Your task to perform on an android device: move an email to a new category in the gmail app Image 0: 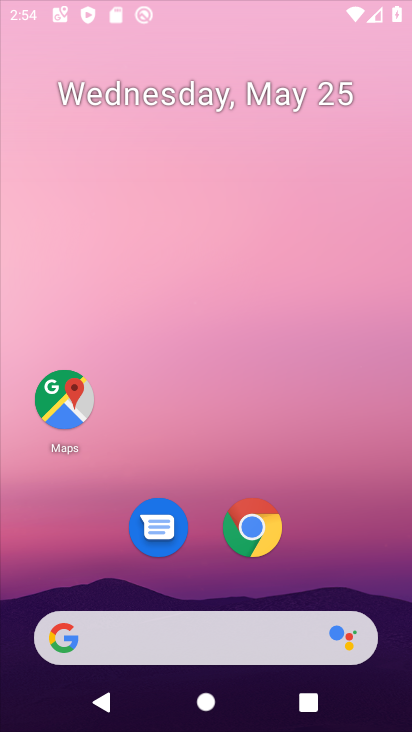
Step 0: click (287, 59)
Your task to perform on an android device: move an email to a new category in the gmail app Image 1: 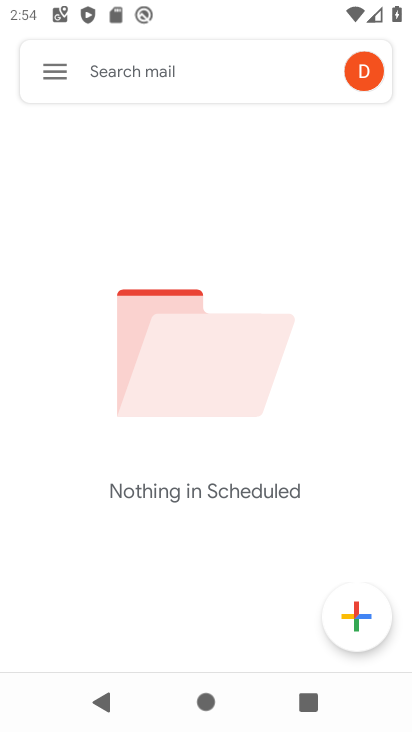
Step 1: press home button
Your task to perform on an android device: move an email to a new category in the gmail app Image 2: 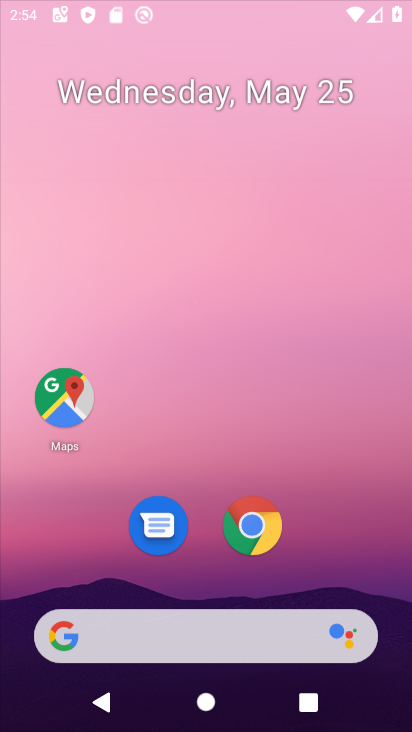
Step 2: drag from (191, 586) to (286, 85)
Your task to perform on an android device: move an email to a new category in the gmail app Image 3: 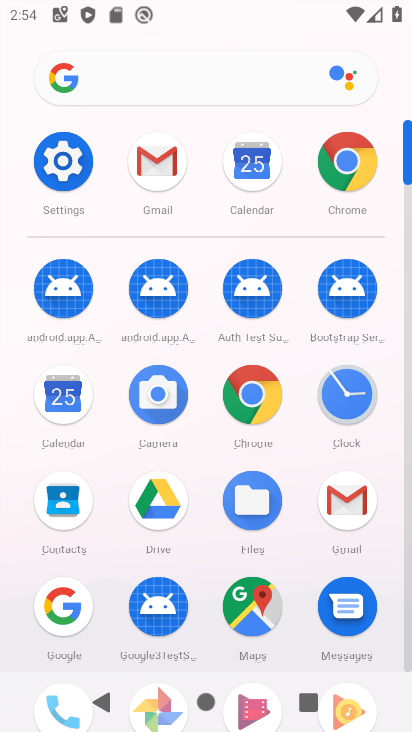
Step 3: click (353, 501)
Your task to perform on an android device: move an email to a new category in the gmail app Image 4: 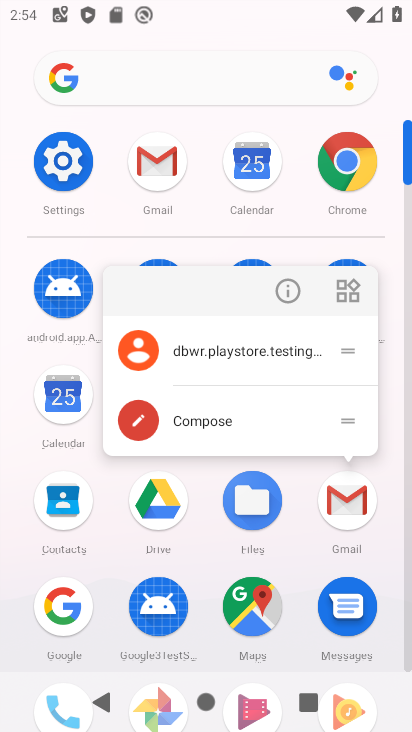
Step 4: click (289, 292)
Your task to perform on an android device: move an email to a new category in the gmail app Image 5: 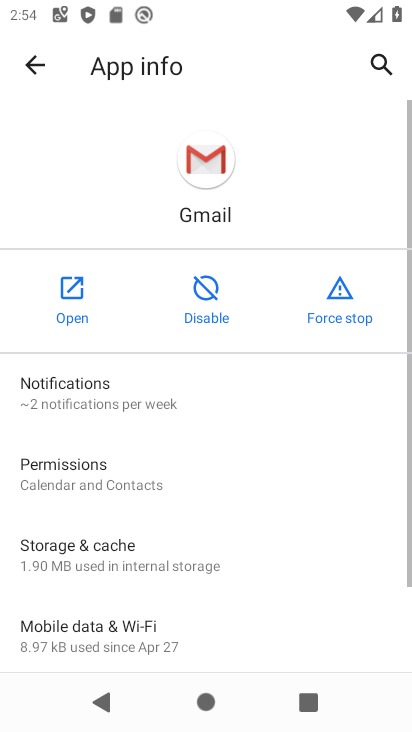
Step 5: click (99, 311)
Your task to perform on an android device: move an email to a new category in the gmail app Image 6: 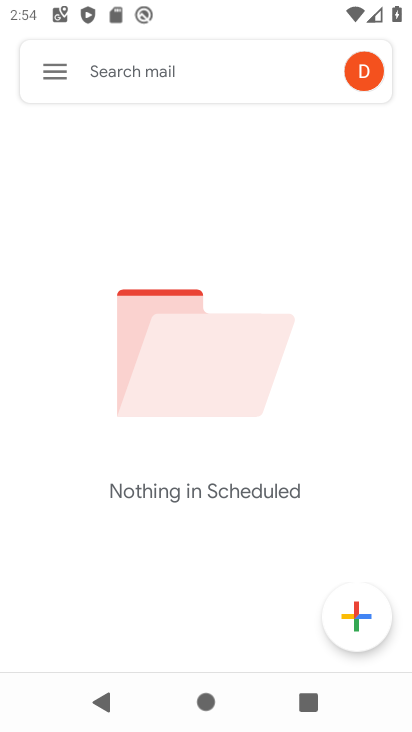
Step 6: click (45, 58)
Your task to perform on an android device: move an email to a new category in the gmail app Image 7: 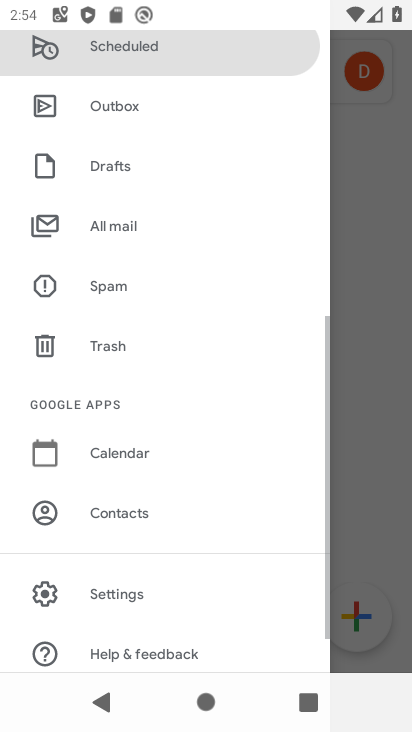
Step 7: drag from (198, 450) to (243, 114)
Your task to perform on an android device: move an email to a new category in the gmail app Image 8: 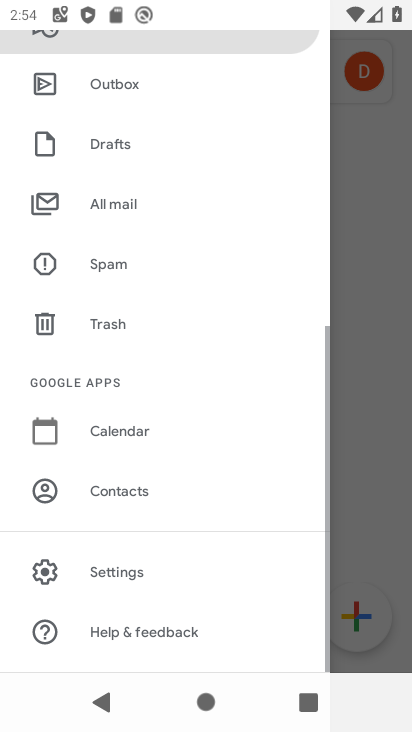
Step 8: drag from (154, 216) to (179, 677)
Your task to perform on an android device: move an email to a new category in the gmail app Image 9: 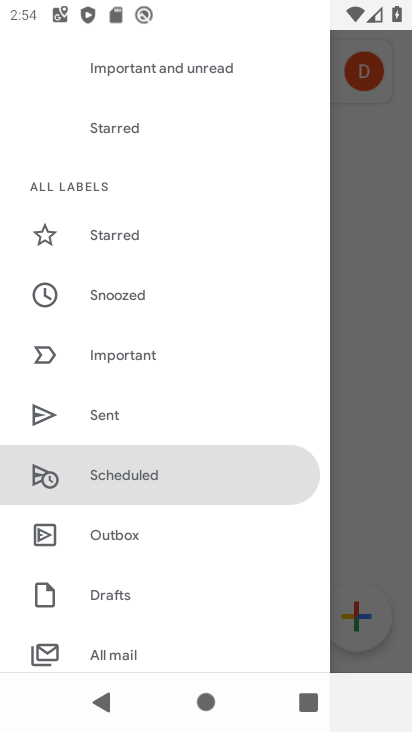
Step 9: drag from (148, 213) to (163, 682)
Your task to perform on an android device: move an email to a new category in the gmail app Image 10: 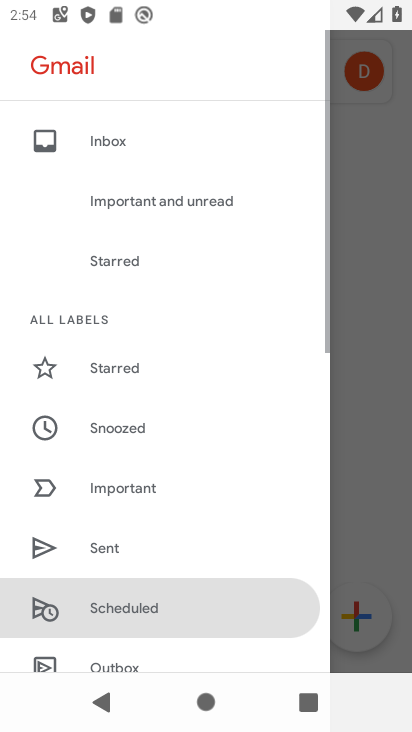
Step 10: click (128, 141)
Your task to perform on an android device: move an email to a new category in the gmail app Image 11: 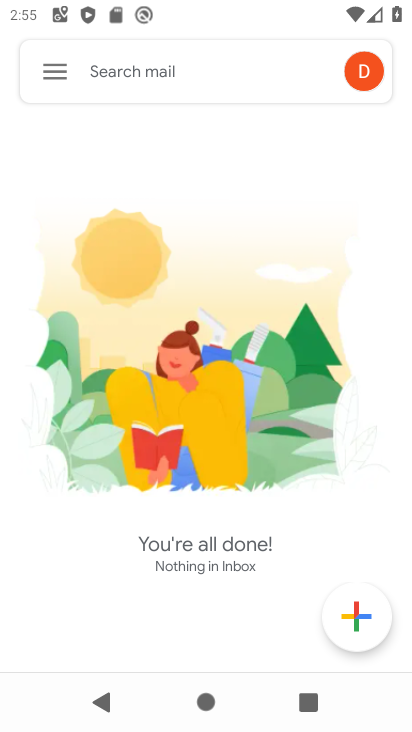
Step 11: task complete